Your task to perform on an android device: What's the weather going to be tomorrow? Image 0: 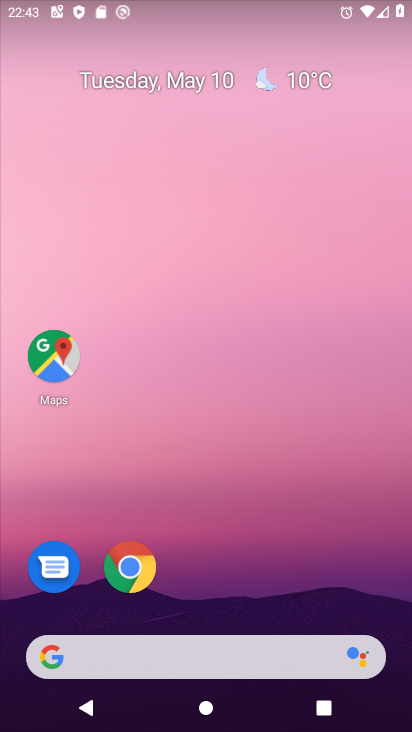
Step 0: click (302, 74)
Your task to perform on an android device: What's the weather going to be tomorrow? Image 1: 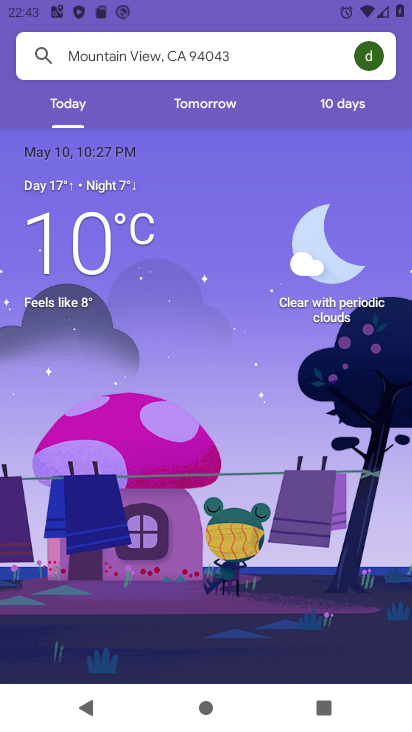
Step 1: click (179, 98)
Your task to perform on an android device: What's the weather going to be tomorrow? Image 2: 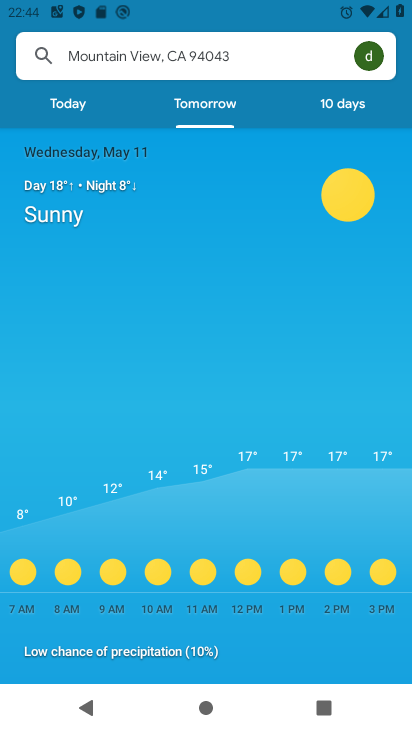
Step 2: task complete